Your task to perform on an android device: Open Youtube and go to the subscriptions tab Image 0: 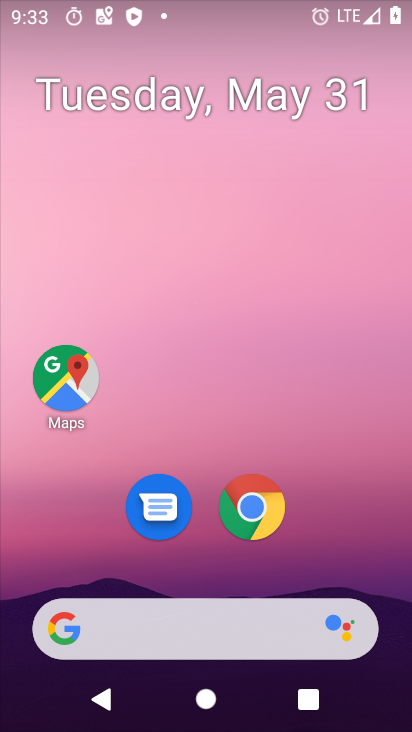
Step 0: drag from (28, 615) to (334, 145)
Your task to perform on an android device: Open Youtube and go to the subscriptions tab Image 1: 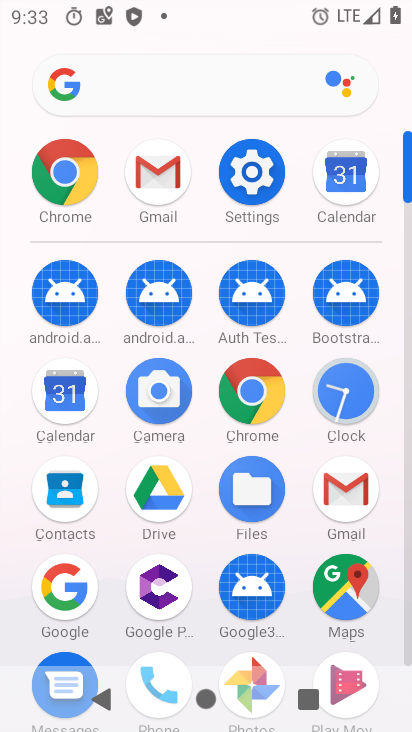
Step 1: drag from (21, 622) to (335, 218)
Your task to perform on an android device: Open Youtube and go to the subscriptions tab Image 2: 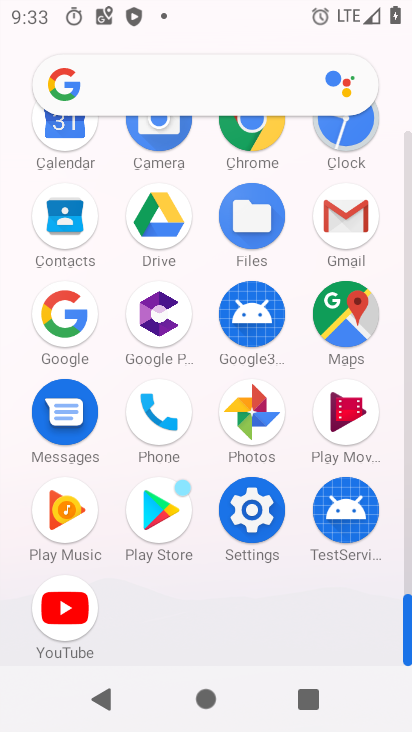
Step 2: click (51, 630)
Your task to perform on an android device: Open Youtube and go to the subscriptions tab Image 3: 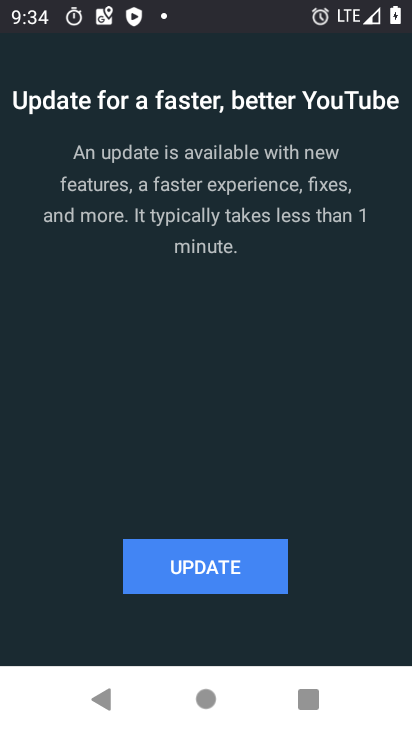
Step 3: task complete